Your task to perform on an android device: Set the phone to "Do not disturb". Image 0: 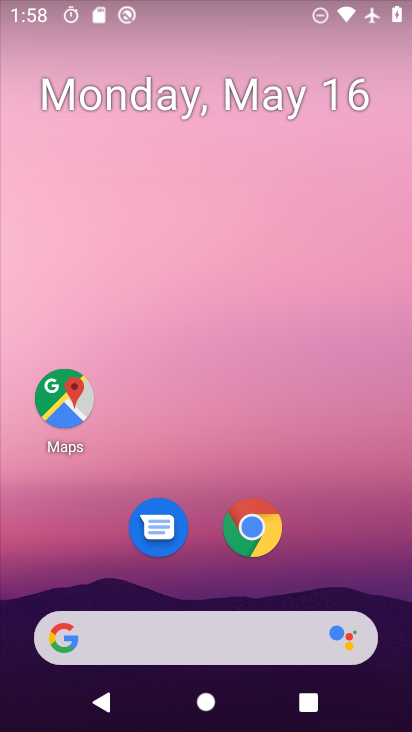
Step 0: press home button
Your task to perform on an android device: Set the phone to "Do not disturb". Image 1: 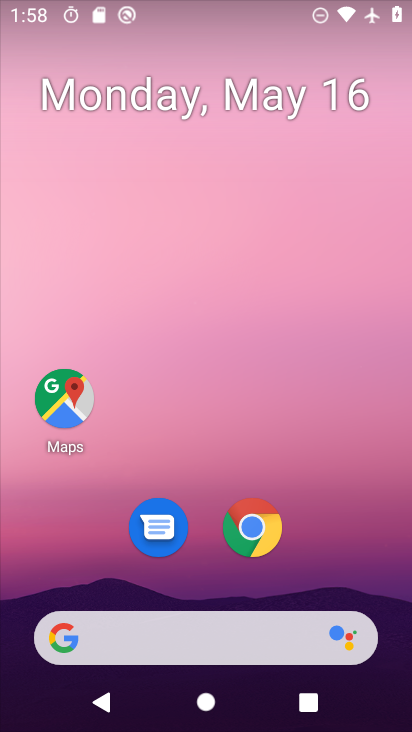
Step 1: drag from (171, 629) to (290, 218)
Your task to perform on an android device: Set the phone to "Do not disturb". Image 2: 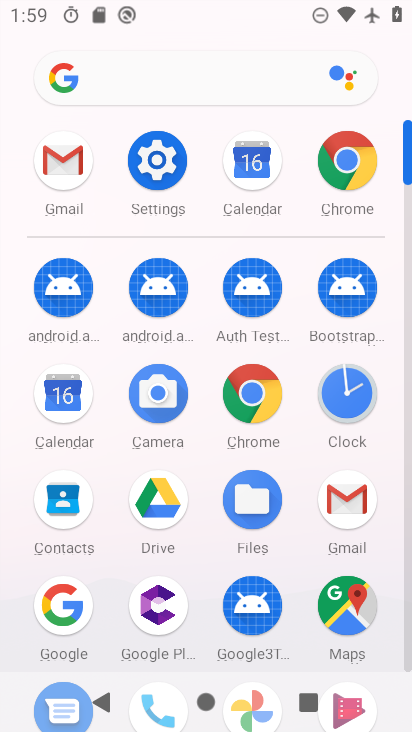
Step 2: click (170, 172)
Your task to perform on an android device: Set the phone to "Do not disturb". Image 3: 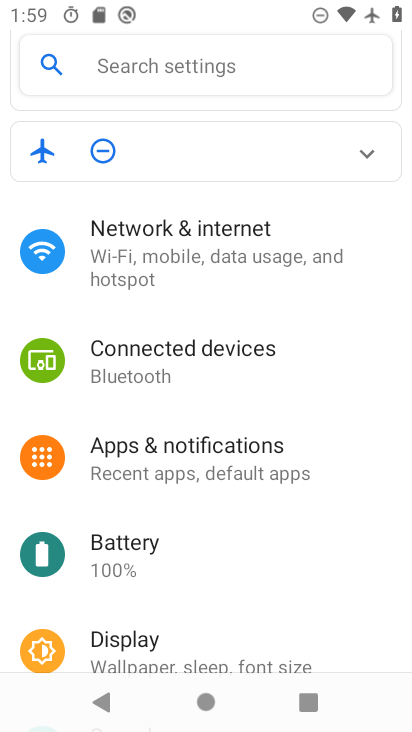
Step 3: drag from (222, 567) to (339, 294)
Your task to perform on an android device: Set the phone to "Do not disturb". Image 4: 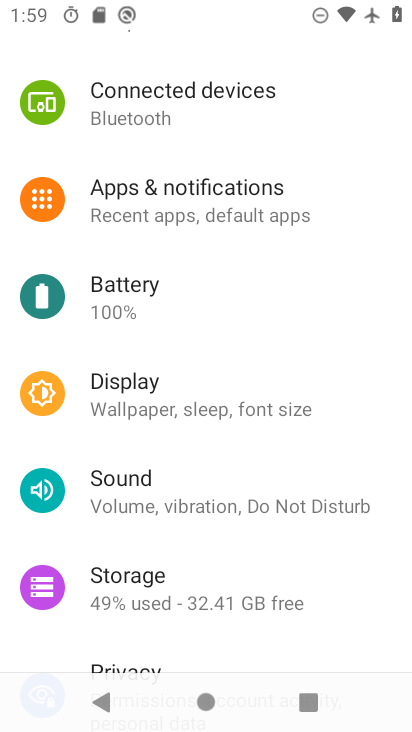
Step 4: click (190, 496)
Your task to perform on an android device: Set the phone to "Do not disturb". Image 5: 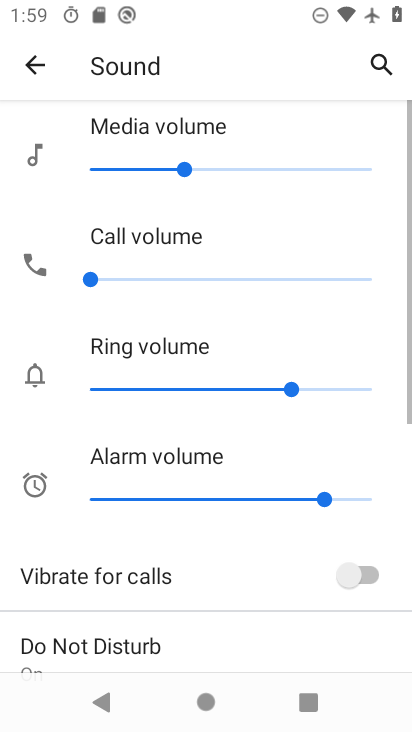
Step 5: drag from (172, 593) to (294, 307)
Your task to perform on an android device: Set the phone to "Do not disturb". Image 6: 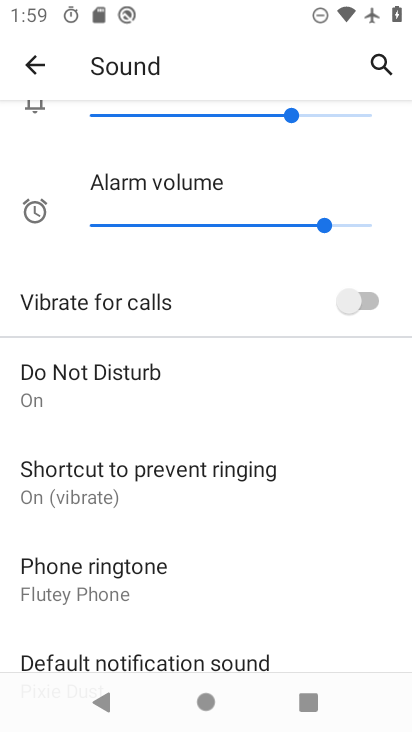
Step 6: click (154, 384)
Your task to perform on an android device: Set the phone to "Do not disturb". Image 7: 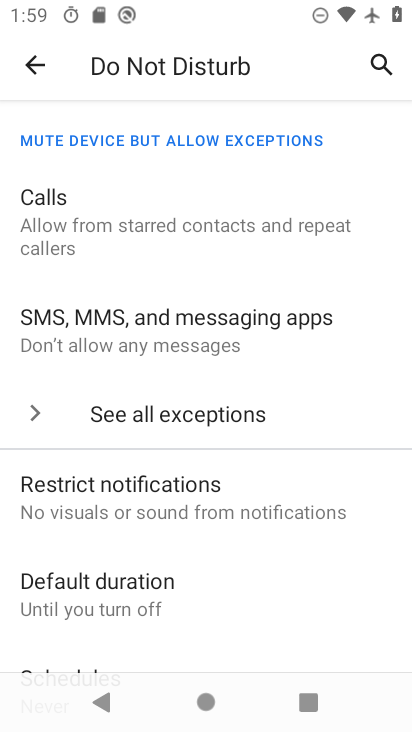
Step 7: task complete